Your task to perform on an android device: Go to sound settings Image 0: 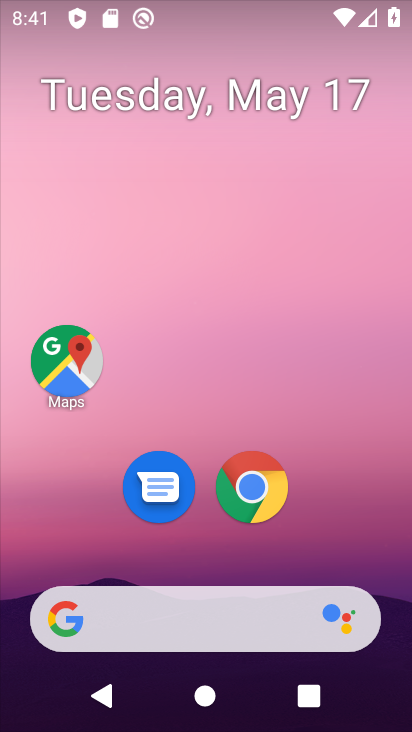
Step 0: press home button
Your task to perform on an android device: Go to sound settings Image 1: 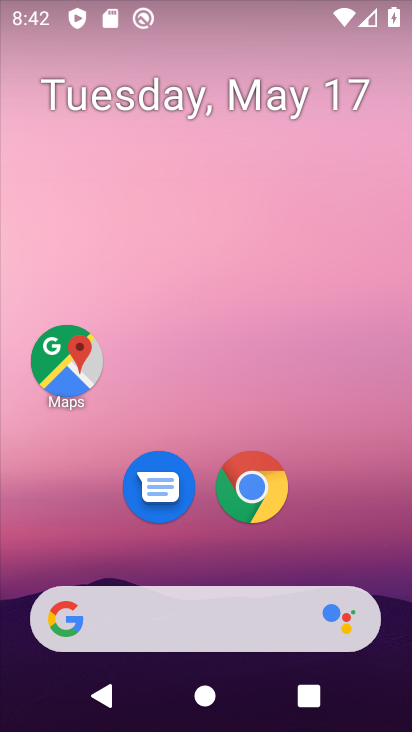
Step 1: drag from (263, 657) to (312, 257)
Your task to perform on an android device: Go to sound settings Image 2: 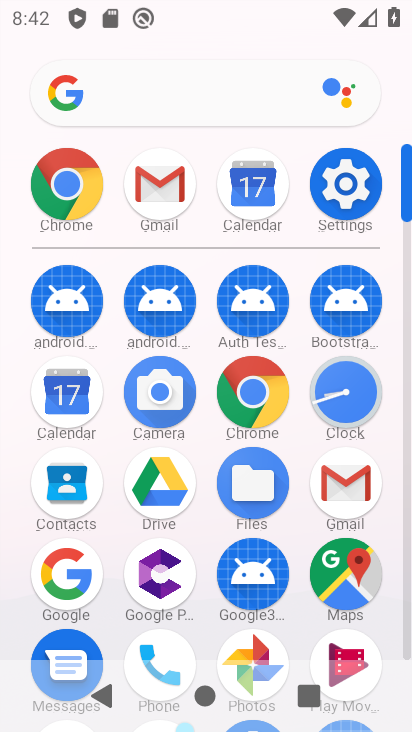
Step 2: click (348, 192)
Your task to perform on an android device: Go to sound settings Image 3: 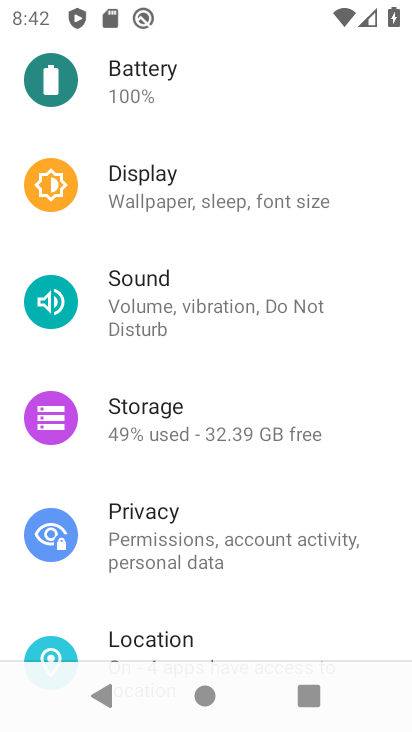
Step 3: drag from (189, 371) to (201, 442)
Your task to perform on an android device: Go to sound settings Image 4: 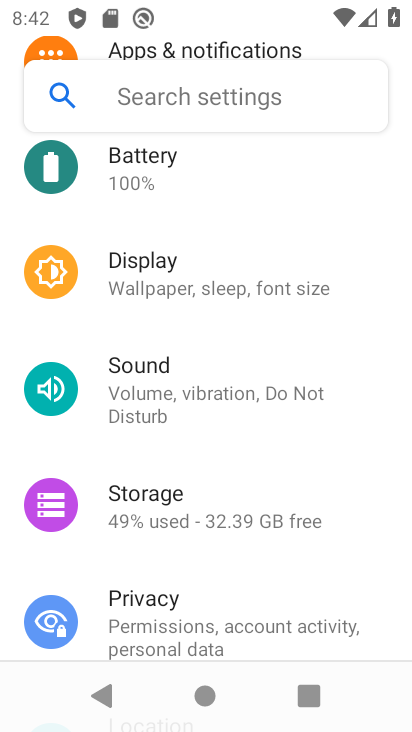
Step 4: click (145, 384)
Your task to perform on an android device: Go to sound settings Image 5: 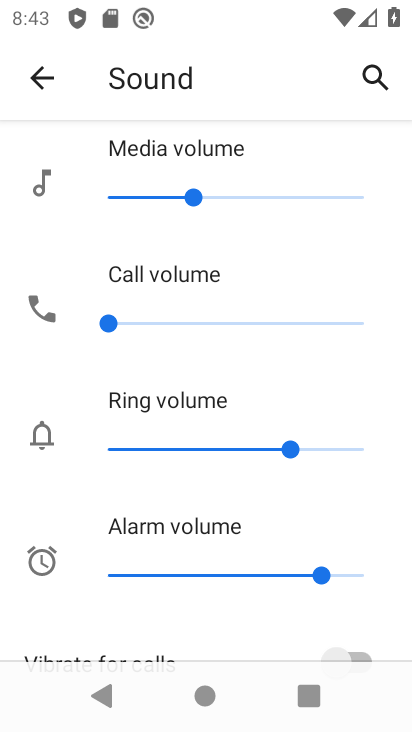
Step 5: task complete